Your task to perform on an android device: What is the recent news? Image 0: 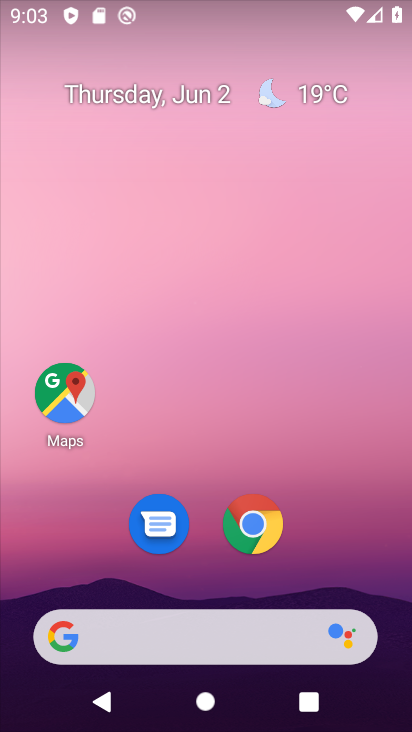
Step 0: click (206, 634)
Your task to perform on an android device: What is the recent news? Image 1: 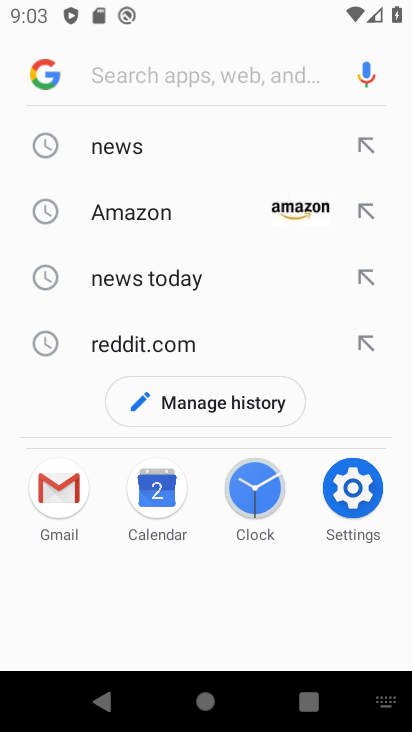
Step 1: click (110, 146)
Your task to perform on an android device: What is the recent news? Image 2: 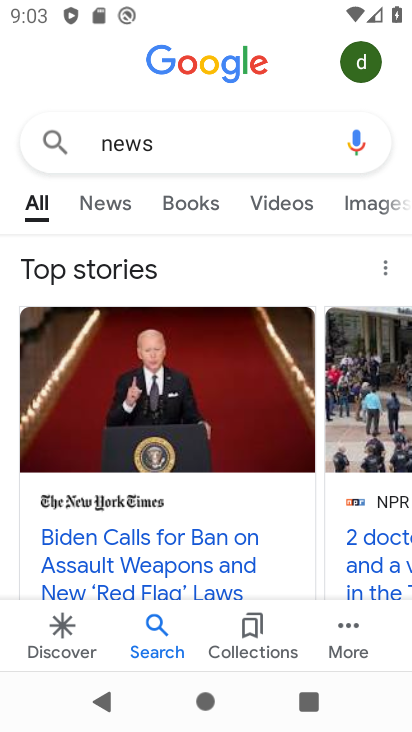
Step 2: click (118, 189)
Your task to perform on an android device: What is the recent news? Image 3: 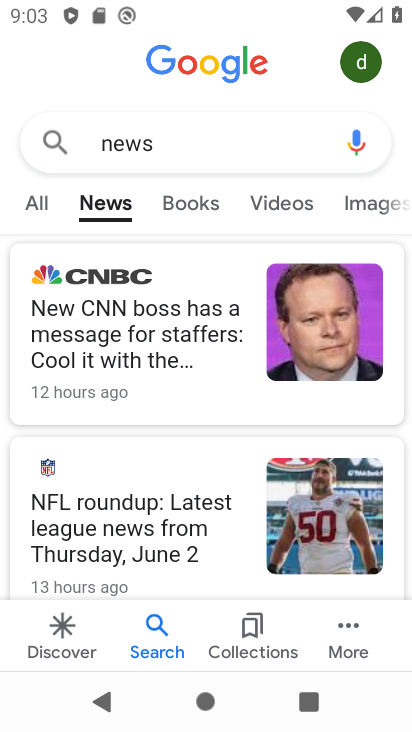
Step 3: task complete